Your task to perform on an android device: turn on wifi Image 0: 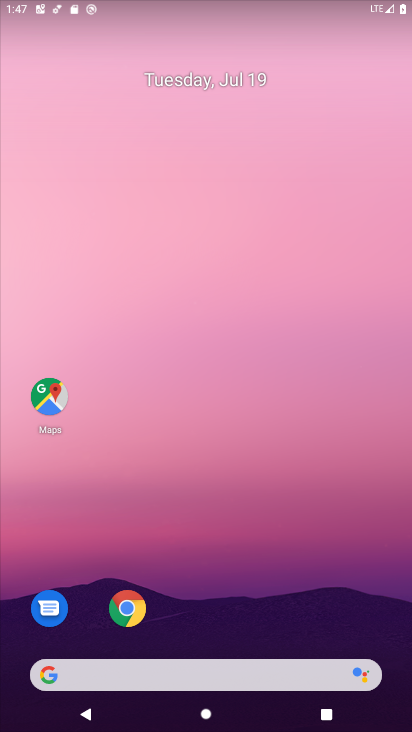
Step 0: drag from (269, 626) to (238, 146)
Your task to perform on an android device: turn on wifi Image 1: 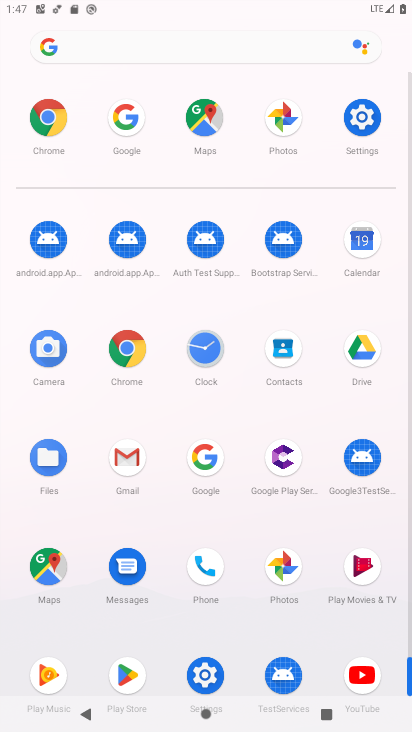
Step 1: click (358, 141)
Your task to perform on an android device: turn on wifi Image 2: 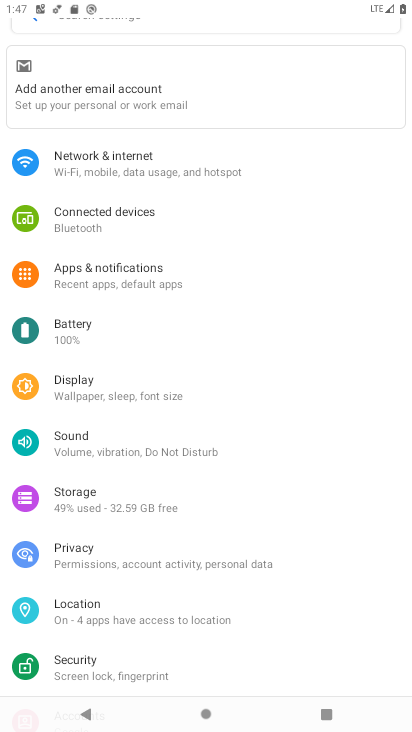
Step 2: click (252, 172)
Your task to perform on an android device: turn on wifi Image 3: 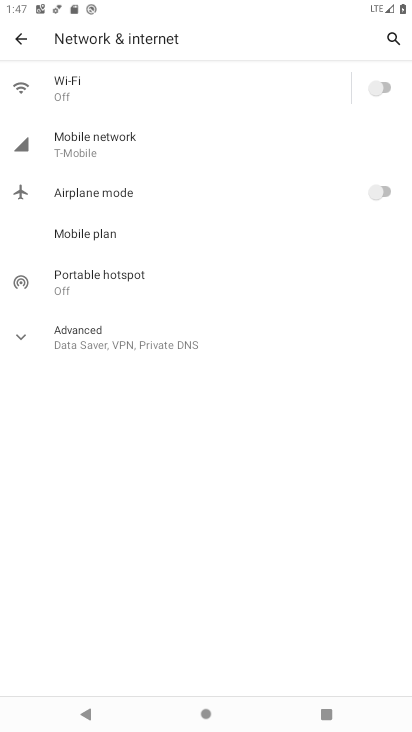
Step 3: click (381, 87)
Your task to perform on an android device: turn on wifi Image 4: 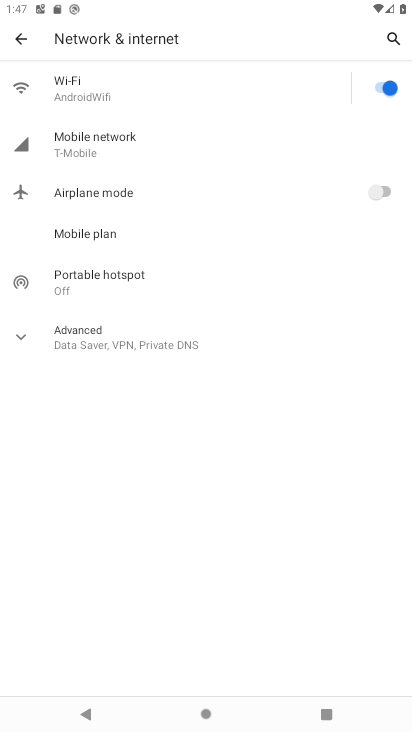
Step 4: task complete